Your task to perform on an android device: Go to sound settings Image 0: 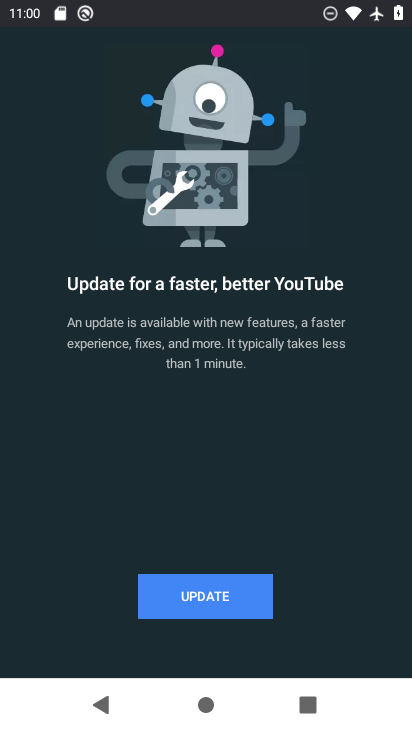
Step 0: press home button
Your task to perform on an android device: Go to sound settings Image 1: 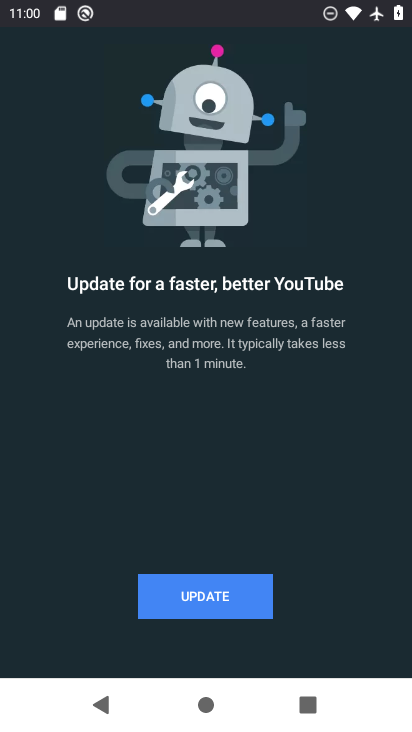
Step 1: drag from (195, 539) to (119, 37)
Your task to perform on an android device: Go to sound settings Image 2: 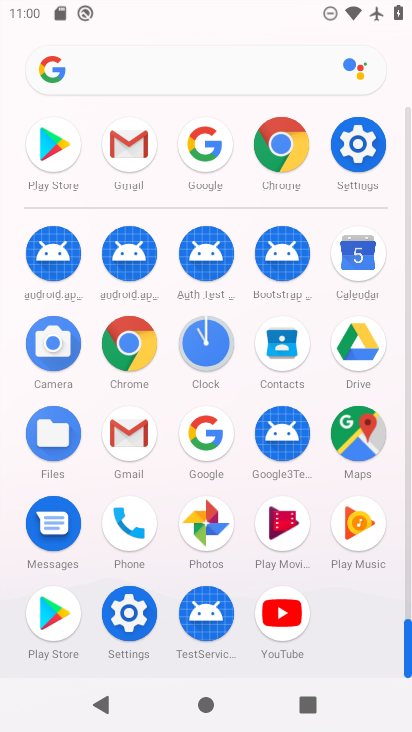
Step 2: click (118, 602)
Your task to perform on an android device: Go to sound settings Image 3: 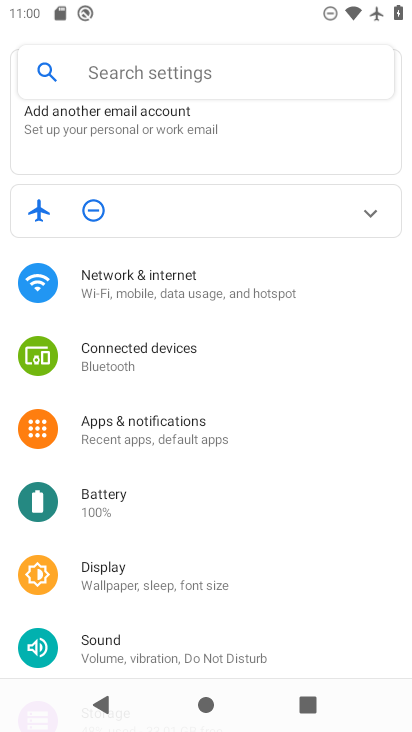
Step 3: drag from (165, 596) to (244, 208)
Your task to perform on an android device: Go to sound settings Image 4: 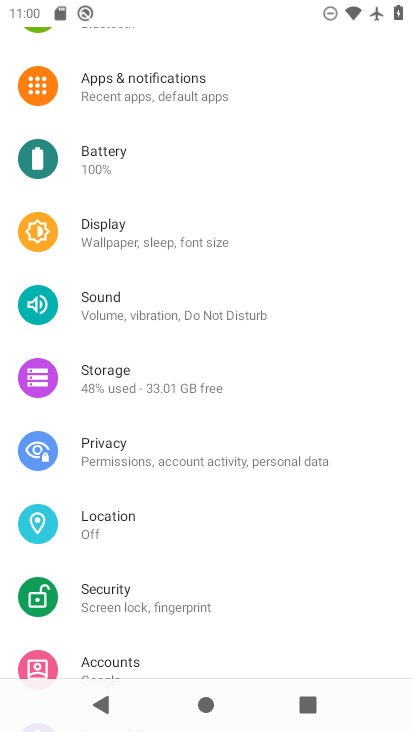
Step 4: click (103, 314)
Your task to perform on an android device: Go to sound settings Image 5: 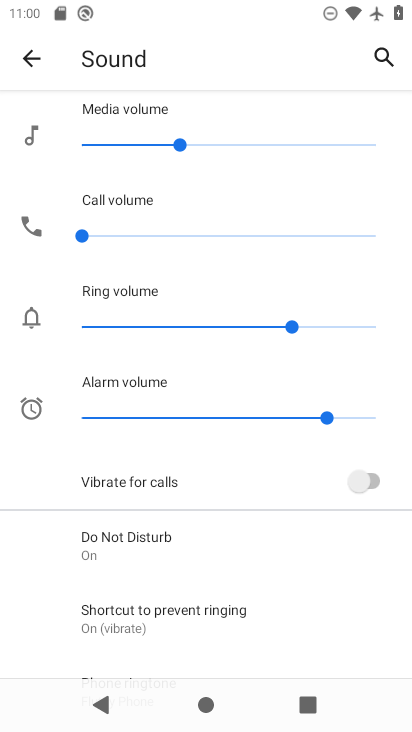
Step 5: task complete